Your task to perform on an android device: Open Google Image 0: 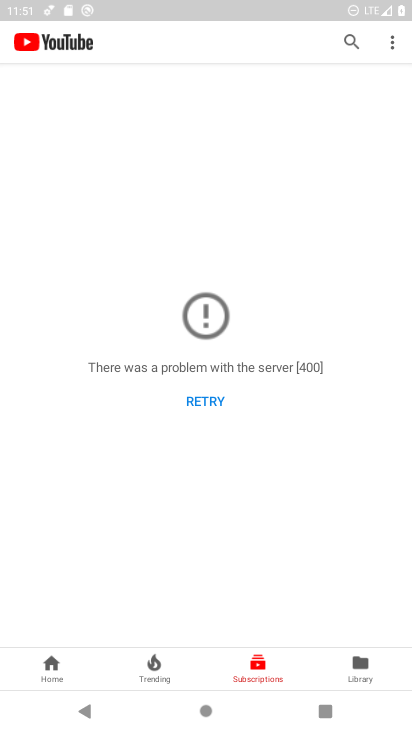
Step 0: press home button
Your task to perform on an android device: Open Google Image 1: 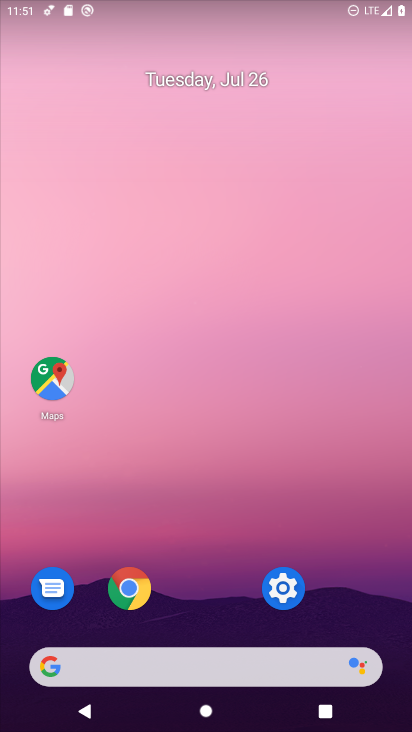
Step 1: click (55, 660)
Your task to perform on an android device: Open Google Image 2: 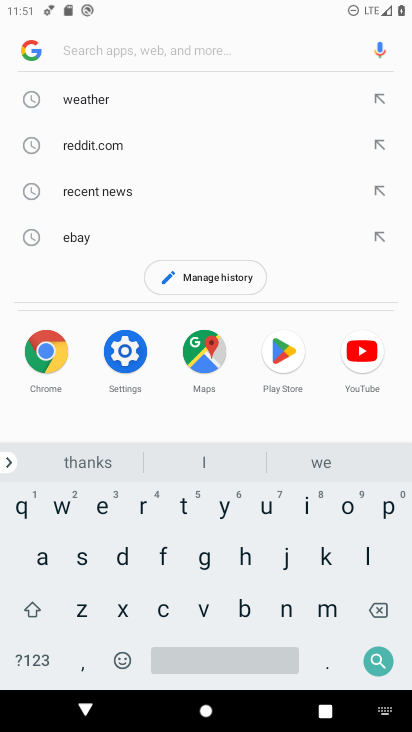
Step 2: click (28, 58)
Your task to perform on an android device: Open Google Image 3: 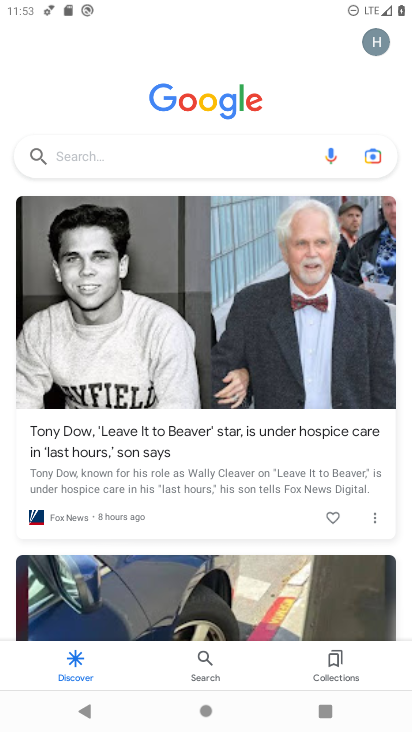
Step 3: task complete